Your task to perform on an android device: Is it going to rain tomorrow? Image 0: 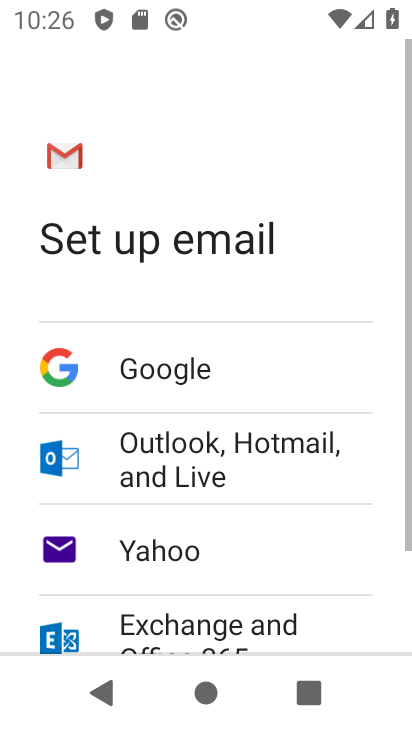
Step 0: press home button
Your task to perform on an android device: Is it going to rain tomorrow? Image 1: 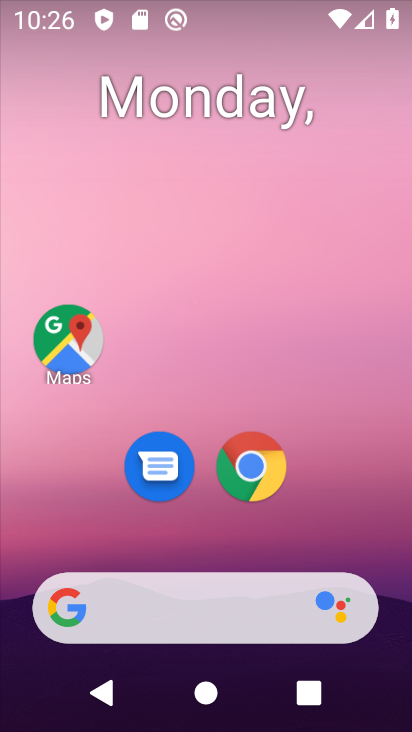
Step 1: click (182, 611)
Your task to perform on an android device: Is it going to rain tomorrow? Image 2: 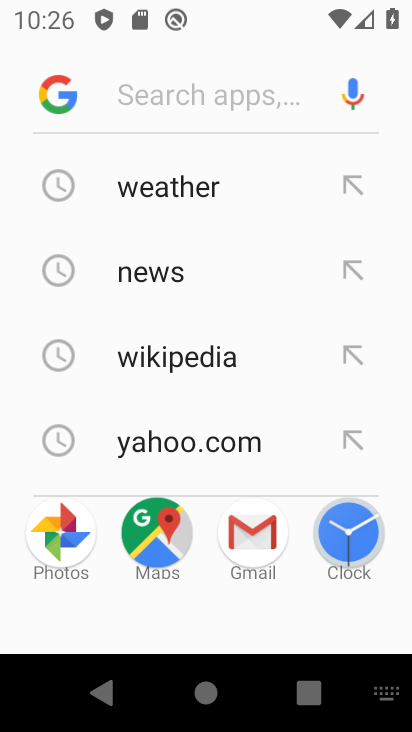
Step 2: type "Is it going to rain tomorrow"
Your task to perform on an android device: Is it going to rain tomorrow? Image 3: 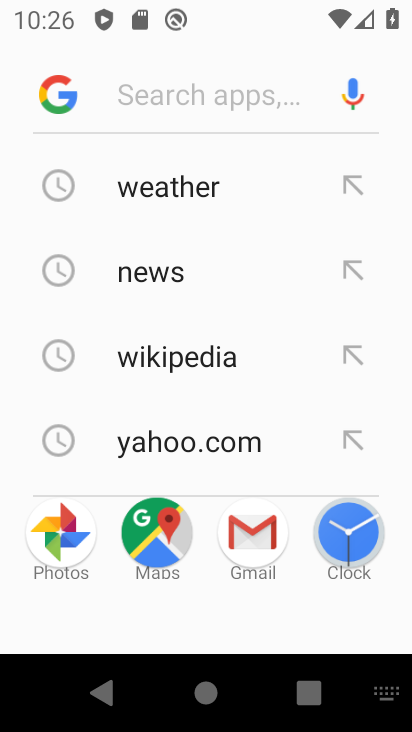
Step 3: click (195, 109)
Your task to perform on an android device: Is it going to rain tomorrow? Image 4: 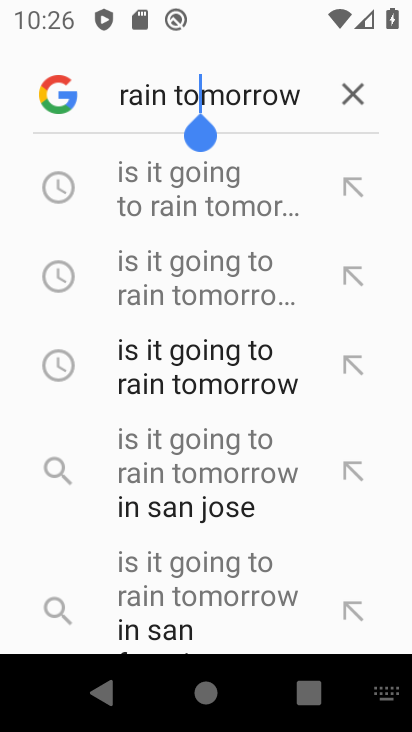
Step 4: click (236, 193)
Your task to perform on an android device: Is it going to rain tomorrow? Image 5: 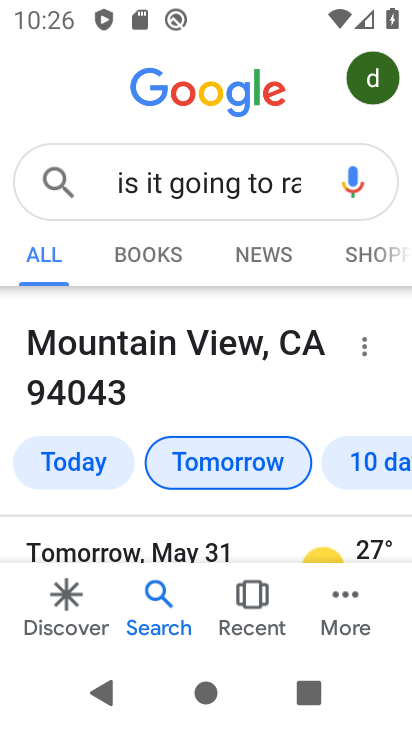
Step 5: task complete